Your task to perform on an android device: Open Yahoo.com Image 0: 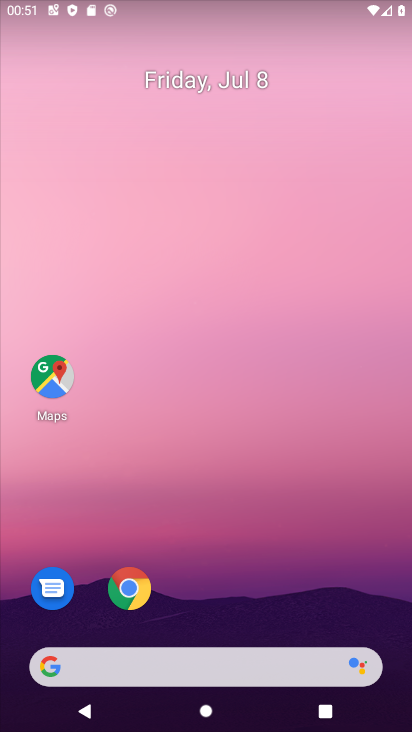
Step 0: click (268, 134)
Your task to perform on an android device: Open Yahoo.com Image 1: 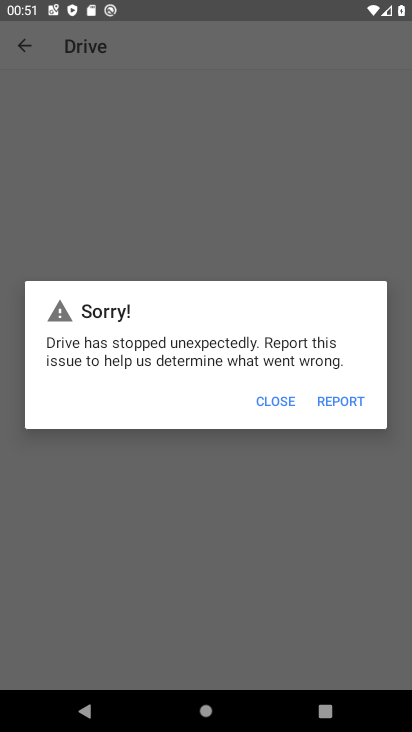
Step 1: press home button
Your task to perform on an android device: Open Yahoo.com Image 2: 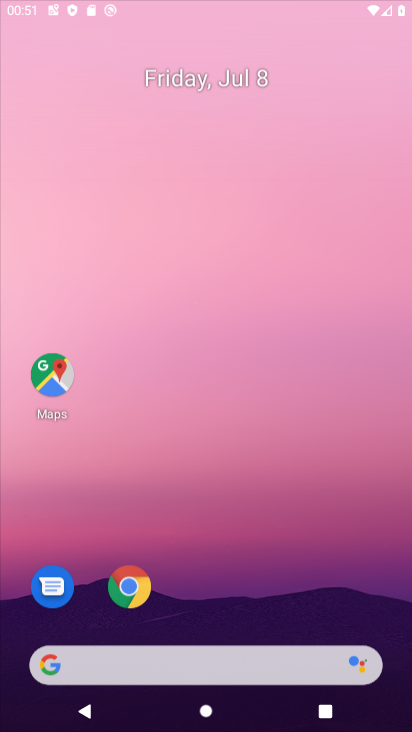
Step 2: drag from (191, 549) to (209, 115)
Your task to perform on an android device: Open Yahoo.com Image 3: 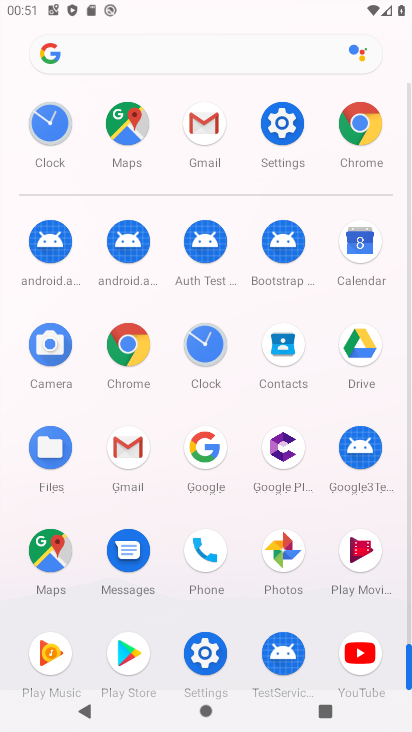
Step 3: click (132, 335)
Your task to perform on an android device: Open Yahoo.com Image 4: 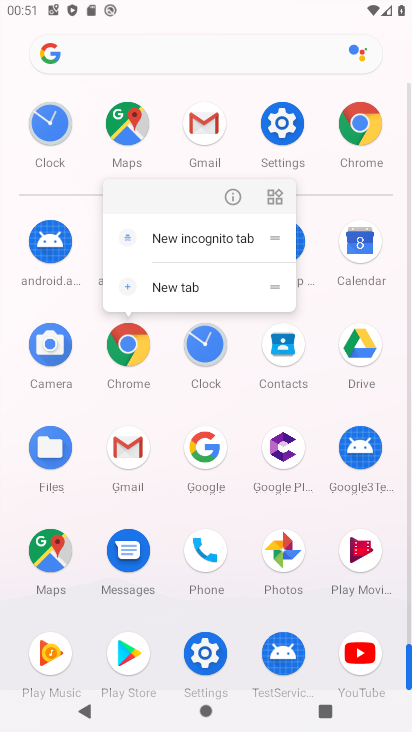
Step 4: click (228, 197)
Your task to perform on an android device: Open Yahoo.com Image 5: 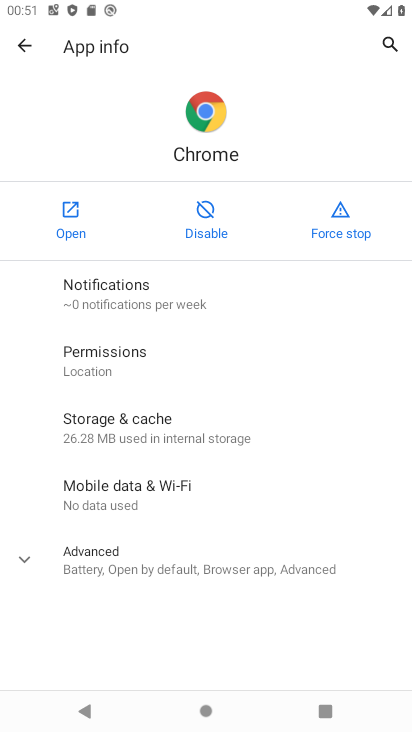
Step 5: click (56, 228)
Your task to perform on an android device: Open Yahoo.com Image 6: 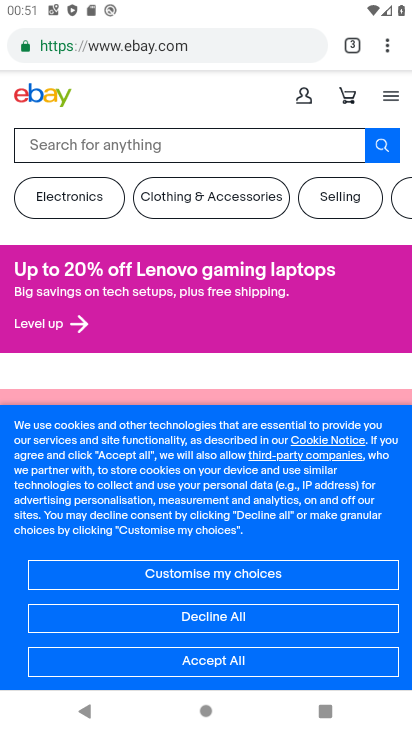
Step 6: click (361, 45)
Your task to perform on an android device: Open Yahoo.com Image 7: 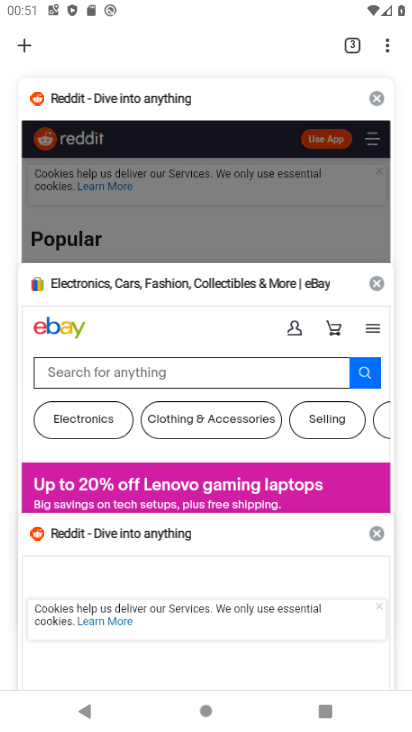
Step 7: click (372, 284)
Your task to perform on an android device: Open Yahoo.com Image 8: 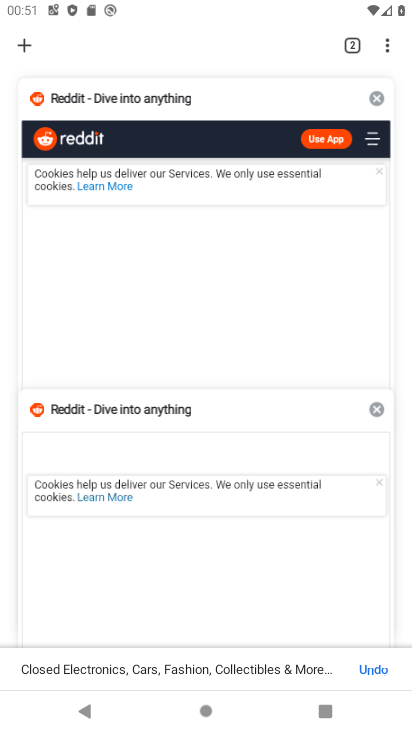
Step 8: click (225, 421)
Your task to perform on an android device: Open Yahoo.com Image 9: 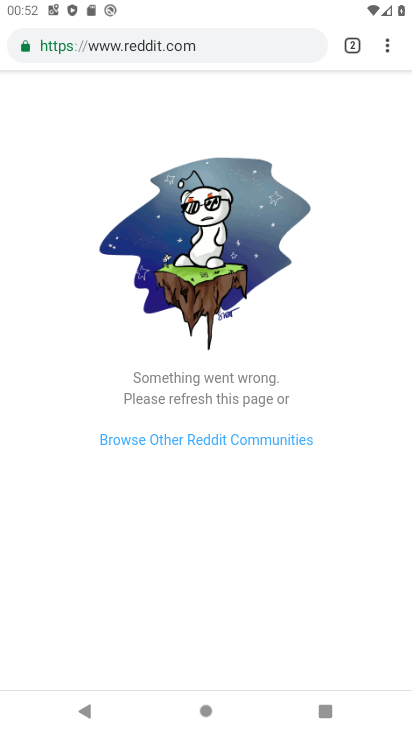
Step 9: click (172, 58)
Your task to perform on an android device: Open Yahoo.com Image 10: 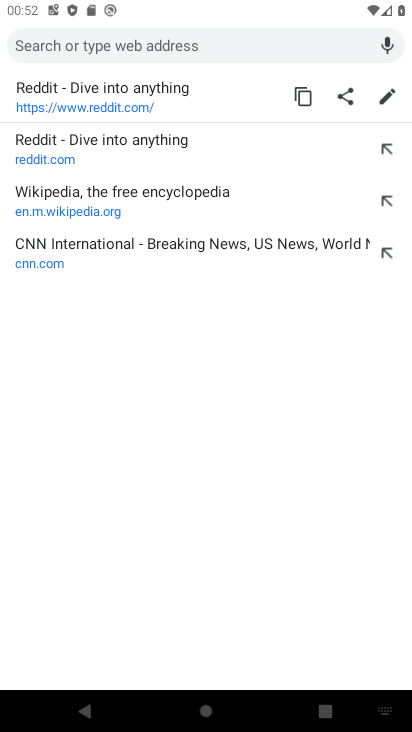
Step 10: type "yahoo"
Your task to perform on an android device: Open Yahoo.com Image 11: 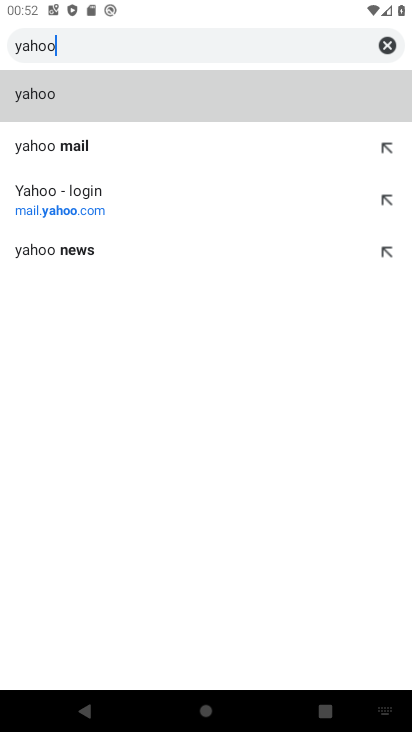
Step 11: click (48, 87)
Your task to perform on an android device: Open Yahoo.com Image 12: 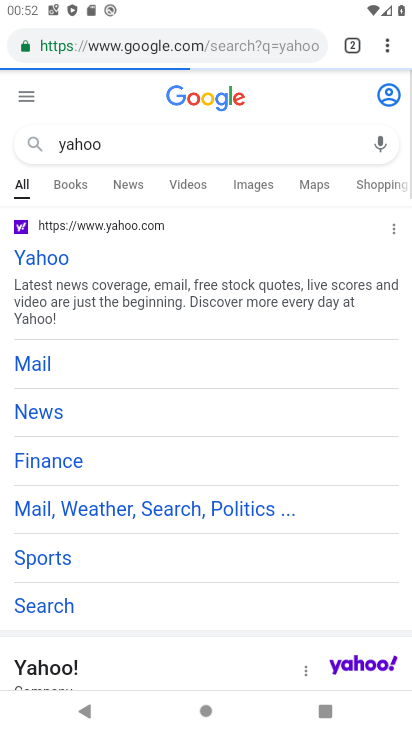
Step 12: drag from (233, 486) to (285, 154)
Your task to perform on an android device: Open Yahoo.com Image 13: 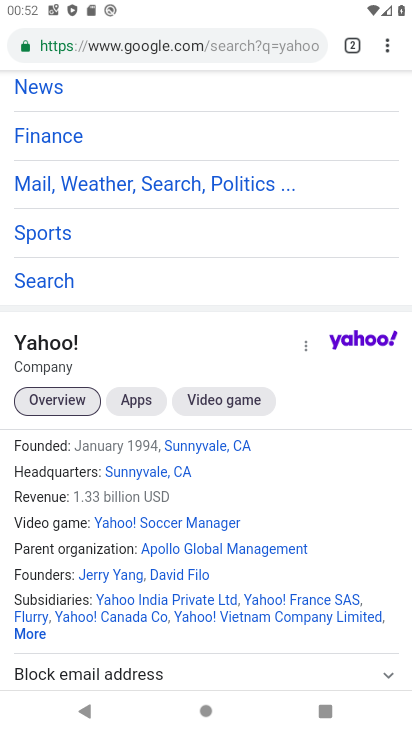
Step 13: drag from (224, 370) to (226, 141)
Your task to perform on an android device: Open Yahoo.com Image 14: 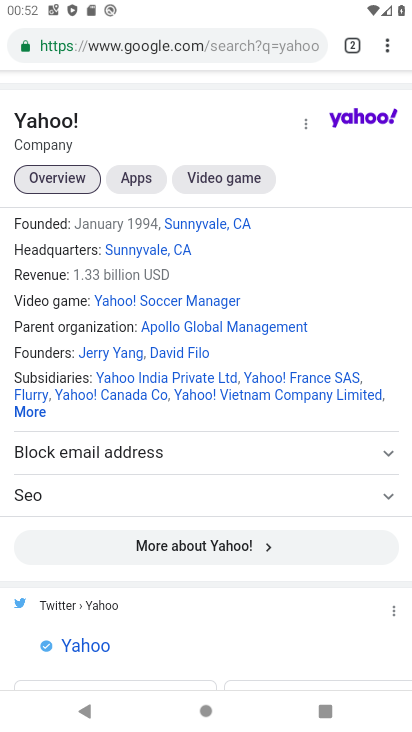
Step 14: drag from (158, 128) to (302, 701)
Your task to perform on an android device: Open Yahoo.com Image 15: 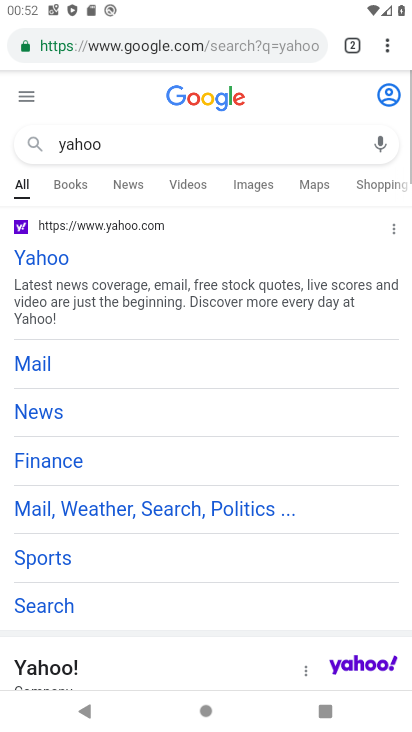
Step 15: drag from (146, 458) to (184, 364)
Your task to perform on an android device: Open Yahoo.com Image 16: 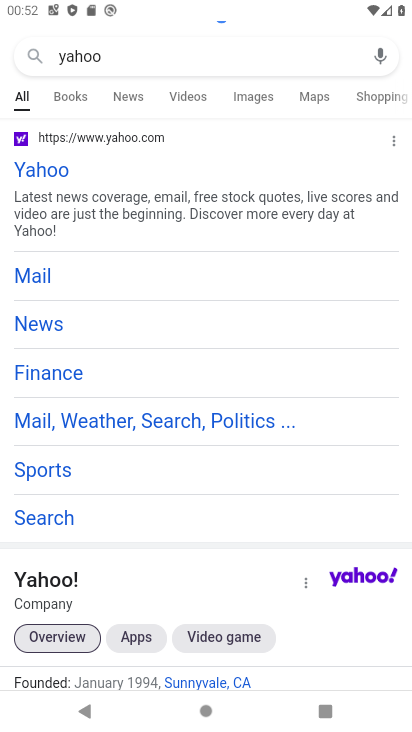
Step 16: click (43, 169)
Your task to perform on an android device: Open Yahoo.com Image 17: 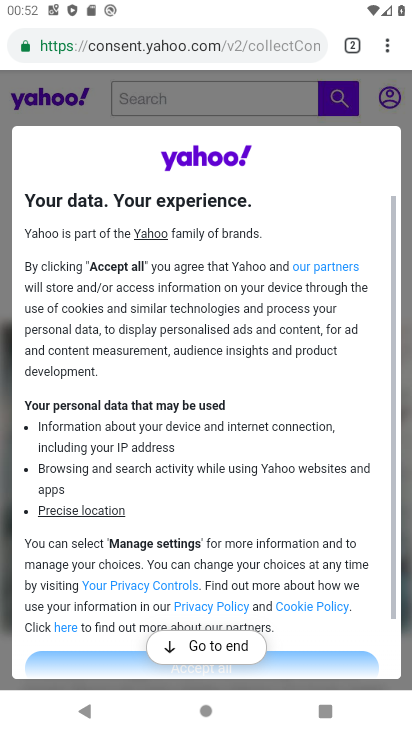
Step 17: task complete